Your task to perform on an android device: Clear the cart on target. Image 0: 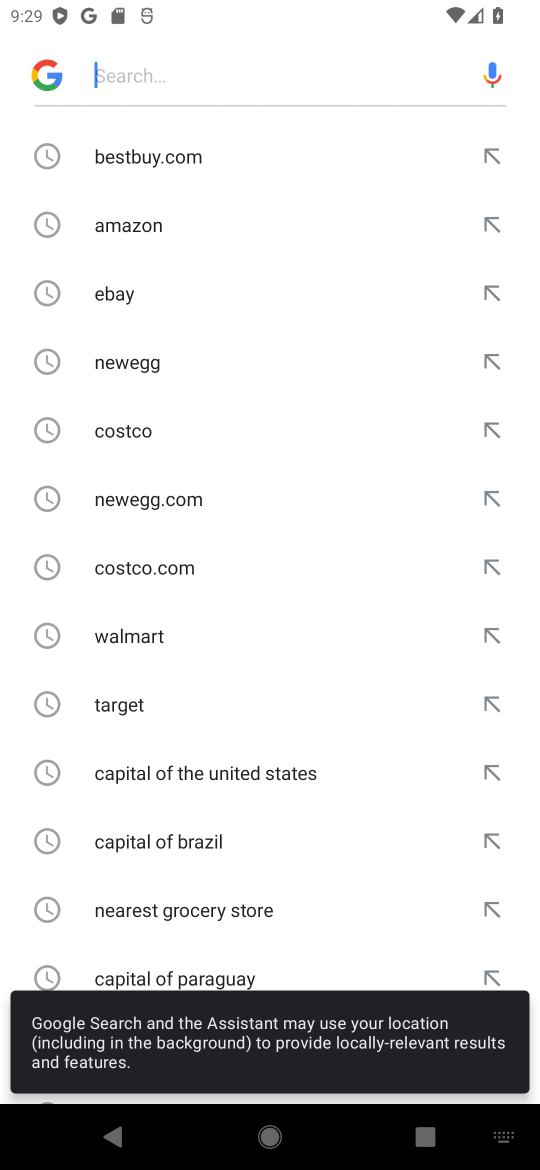
Step 0: press home button
Your task to perform on an android device: Clear the cart on target. Image 1: 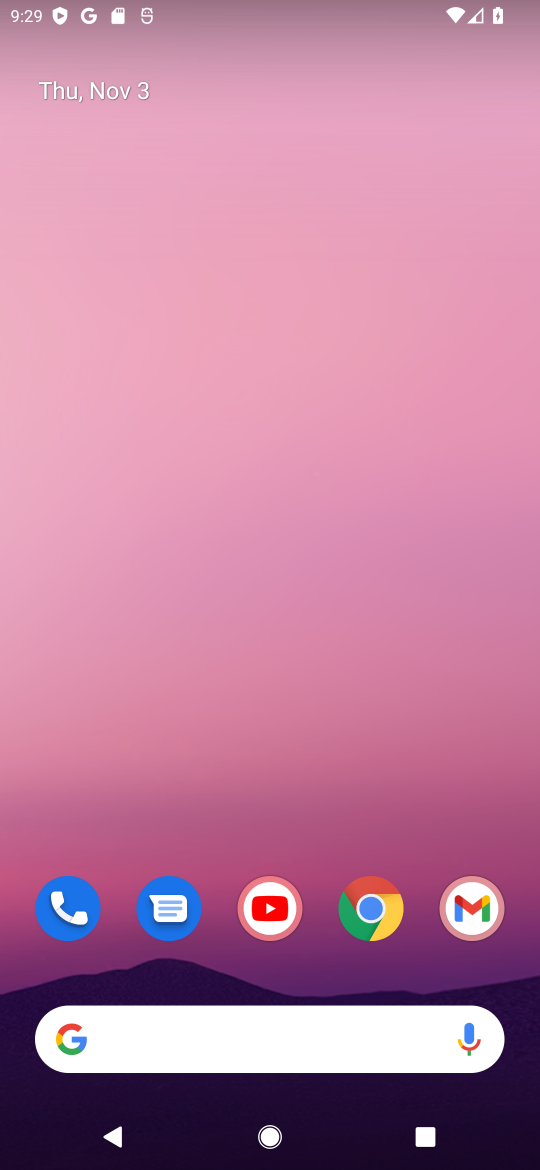
Step 1: click (358, 910)
Your task to perform on an android device: Clear the cart on target. Image 2: 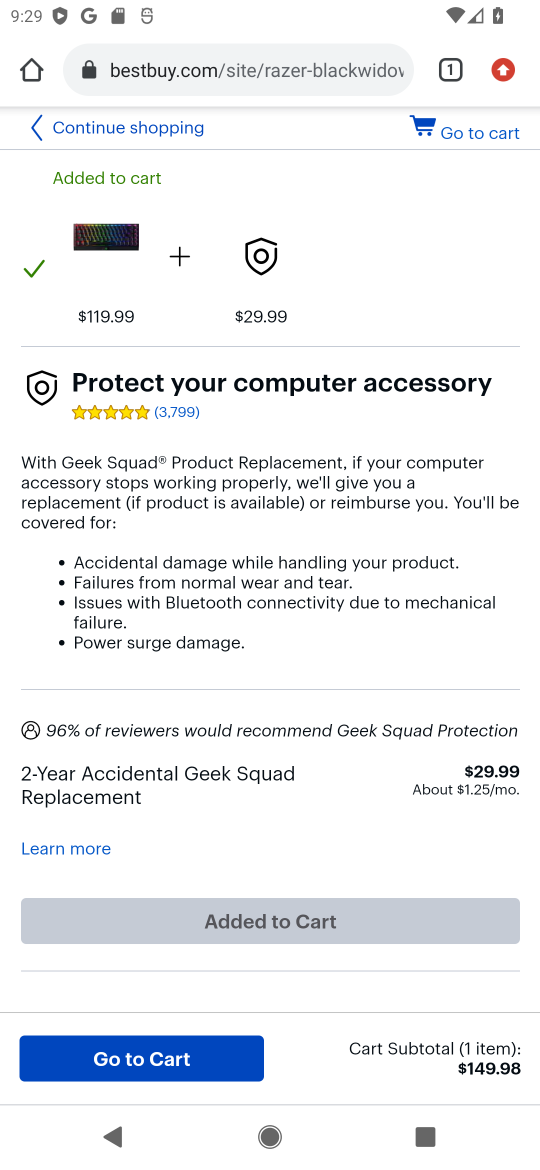
Step 2: click (31, 67)
Your task to perform on an android device: Clear the cart on target. Image 3: 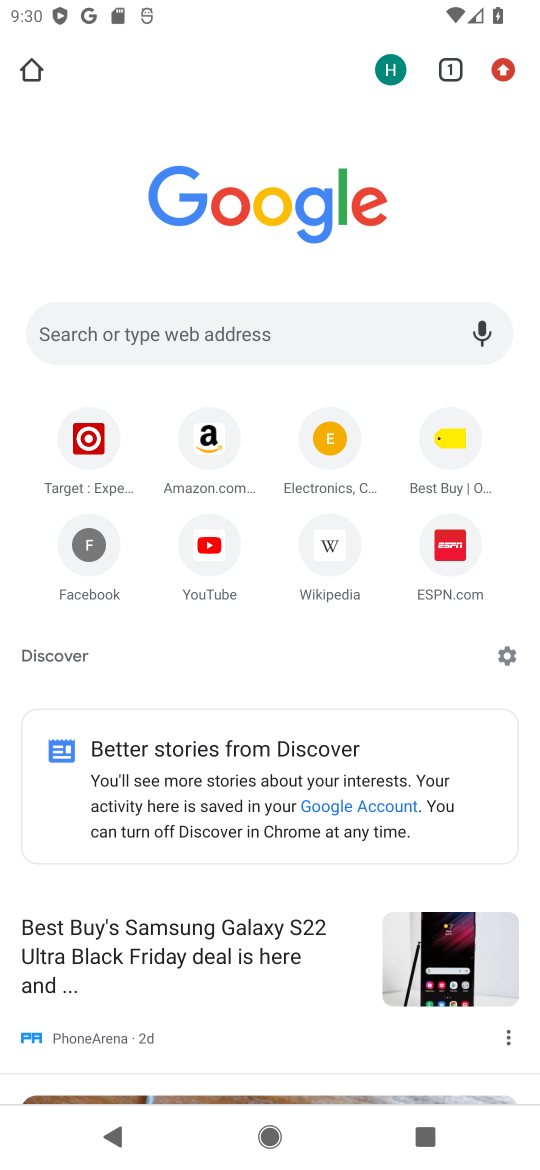
Step 3: click (89, 438)
Your task to perform on an android device: Clear the cart on target. Image 4: 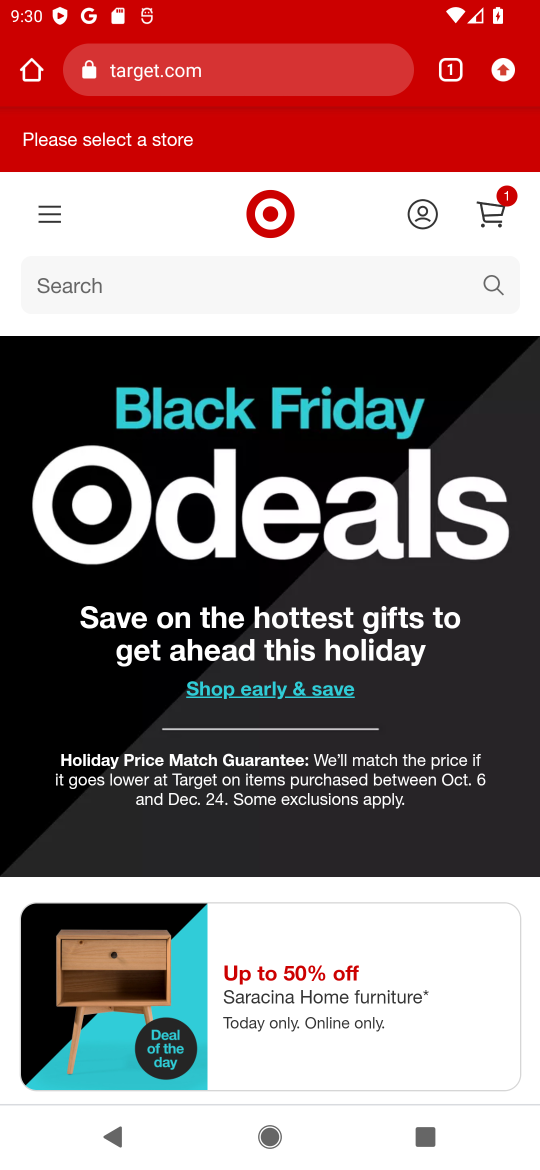
Step 4: click (495, 212)
Your task to perform on an android device: Clear the cart on target. Image 5: 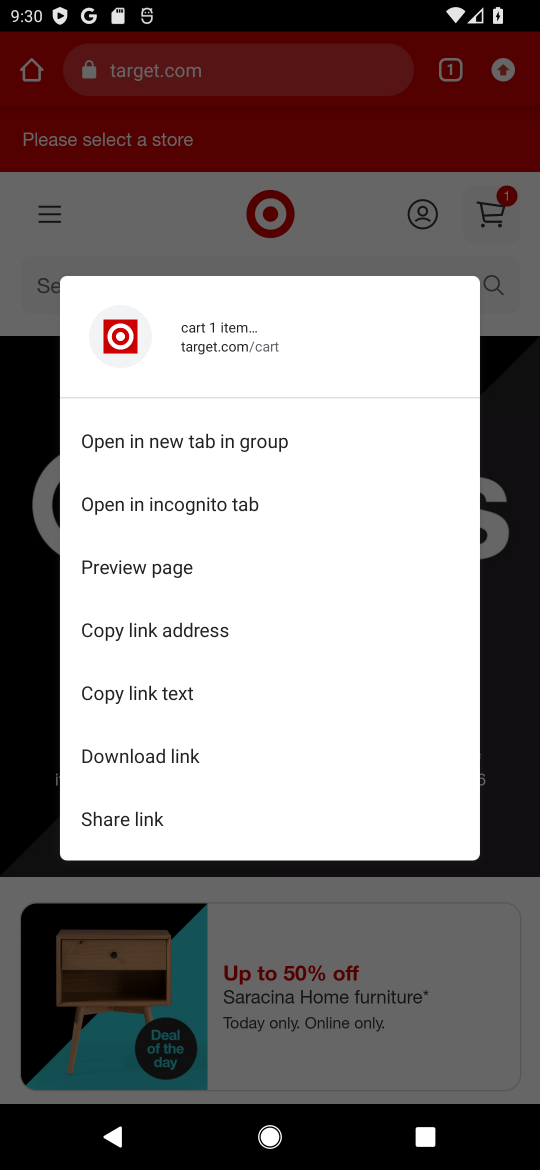
Step 5: click (494, 222)
Your task to perform on an android device: Clear the cart on target. Image 6: 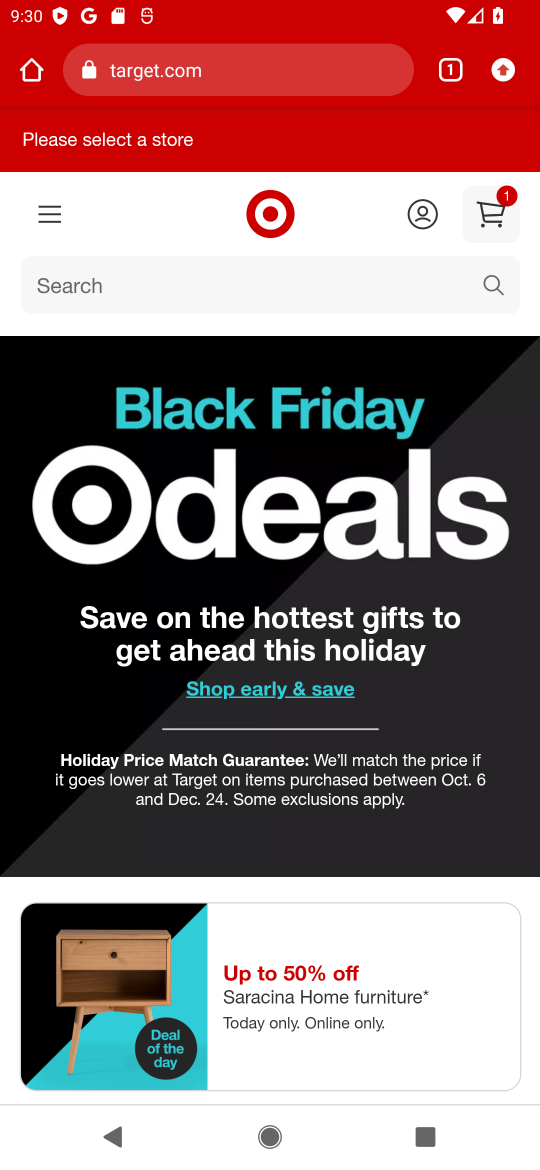
Step 6: click (494, 222)
Your task to perform on an android device: Clear the cart on target. Image 7: 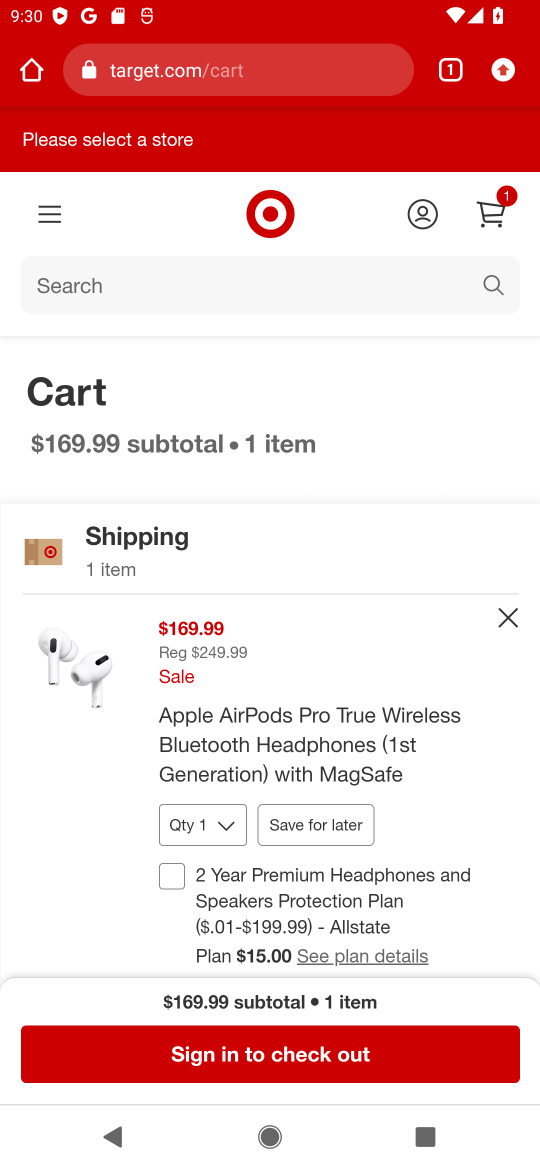
Step 7: click (505, 609)
Your task to perform on an android device: Clear the cart on target. Image 8: 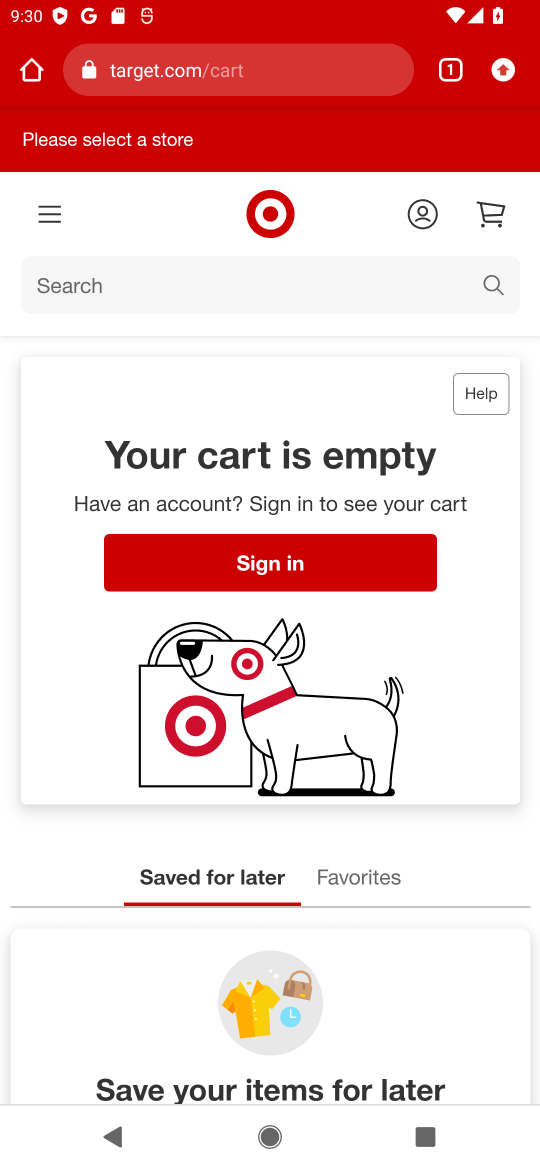
Step 8: task complete